Your task to perform on an android device: Show me popular videos on Youtube Image 0: 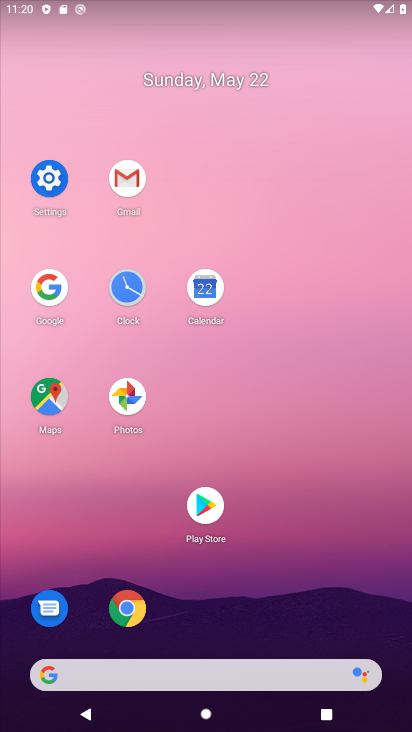
Step 0: drag from (341, 499) to (299, 71)
Your task to perform on an android device: Show me popular videos on Youtube Image 1: 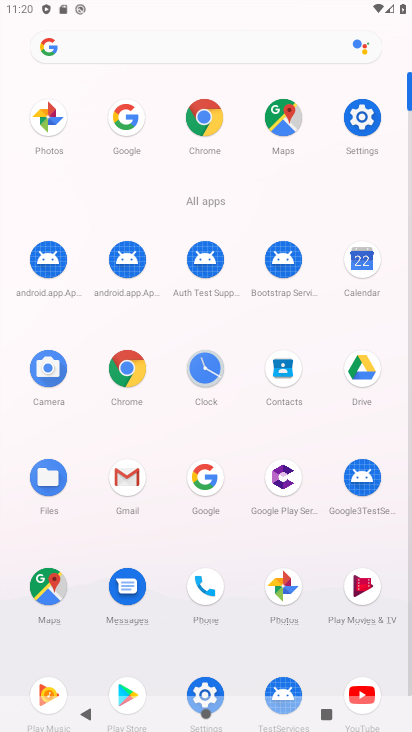
Step 1: click (365, 683)
Your task to perform on an android device: Show me popular videos on Youtube Image 2: 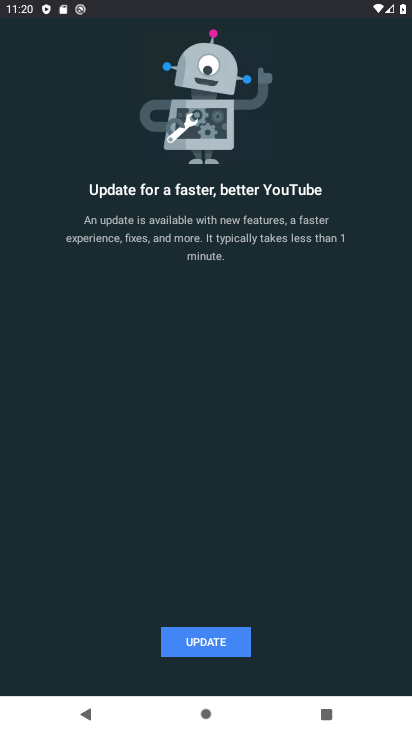
Step 2: click (48, 647)
Your task to perform on an android device: Show me popular videos on Youtube Image 3: 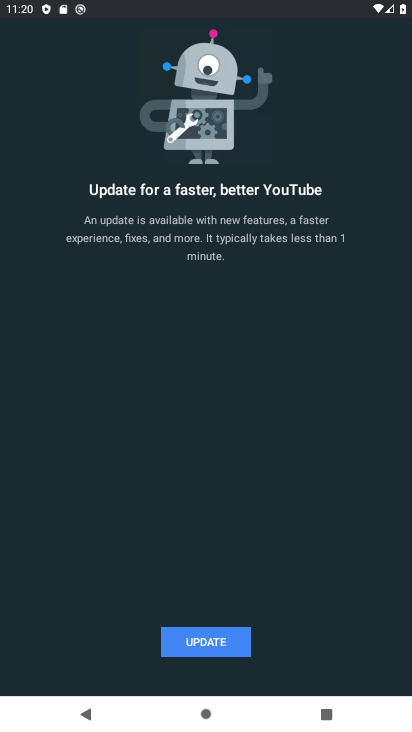
Step 3: click (162, 659)
Your task to perform on an android device: Show me popular videos on Youtube Image 4: 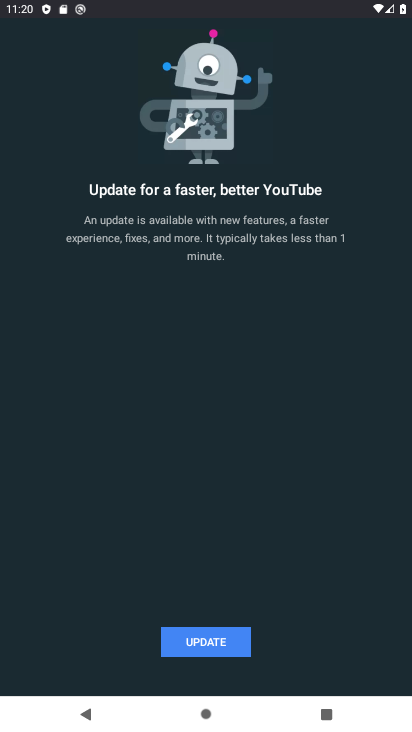
Step 4: click (170, 651)
Your task to perform on an android device: Show me popular videos on Youtube Image 5: 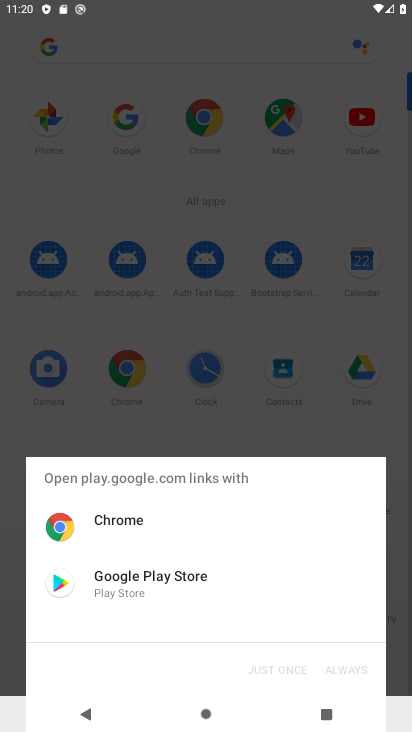
Step 5: click (105, 595)
Your task to perform on an android device: Show me popular videos on Youtube Image 6: 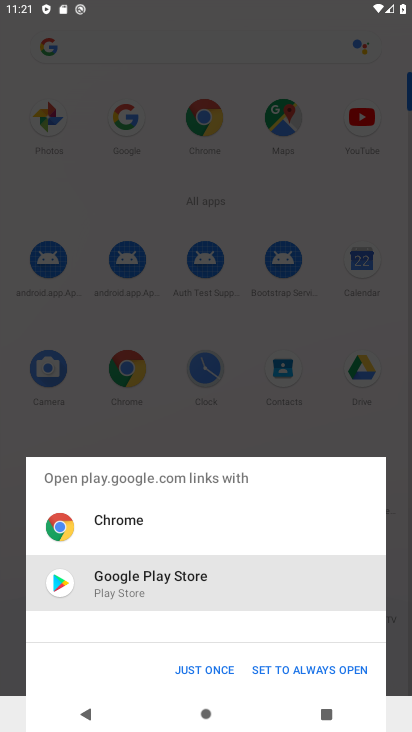
Step 6: click (246, 580)
Your task to perform on an android device: Show me popular videos on Youtube Image 7: 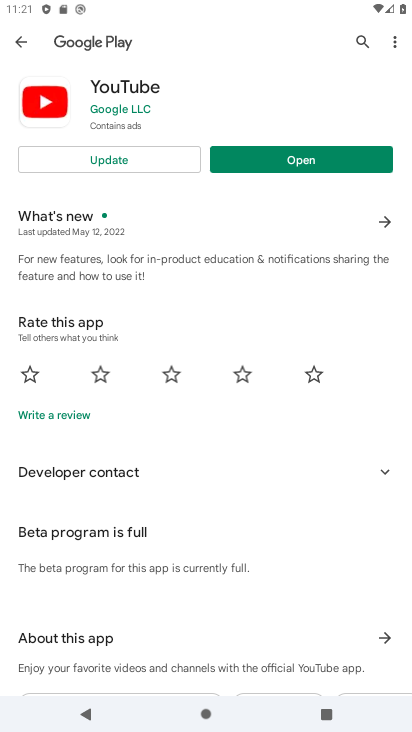
Step 7: click (190, 157)
Your task to perform on an android device: Show me popular videos on Youtube Image 8: 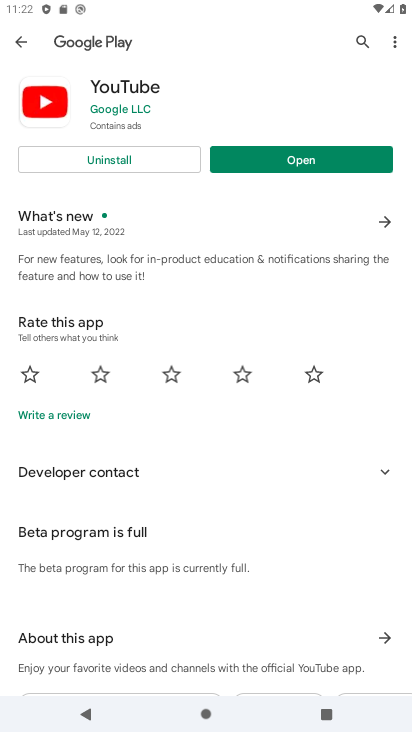
Step 8: click (342, 156)
Your task to perform on an android device: Show me popular videos on Youtube Image 9: 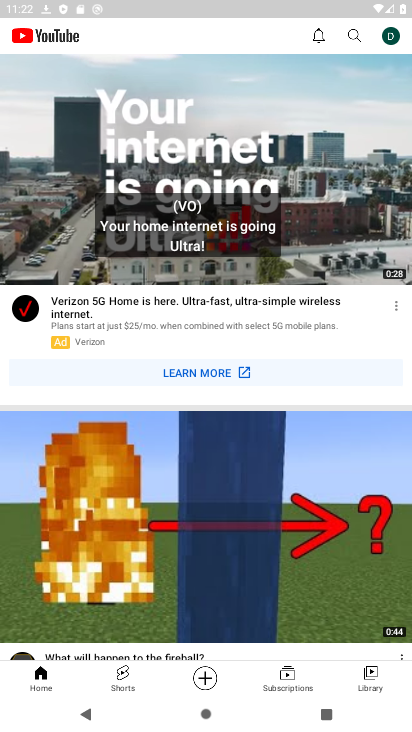
Step 9: task complete